Your task to perform on an android device: check the backup settings in the google photos Image 0: 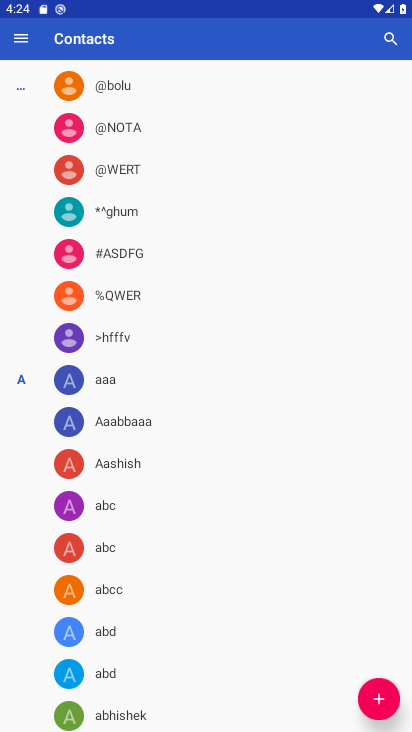
Step 0: press home button
Your task to perform on an android device: check the backup settings in the google photos Image 1: 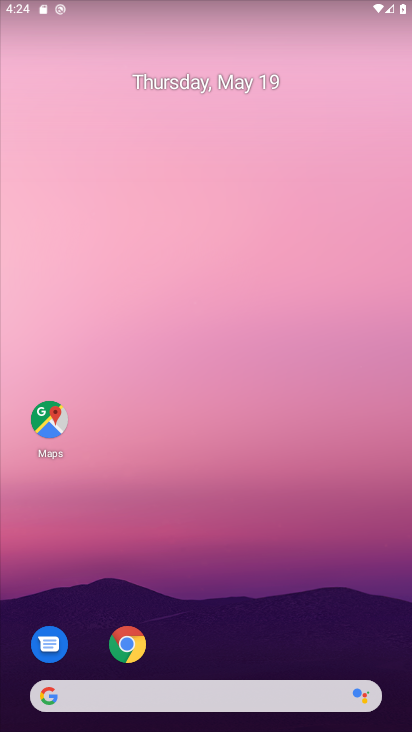
Step 1: drag from (345, 623) to (338, 108)
Your task to perform on an android device: check the backup settings in the google photos Image 2: 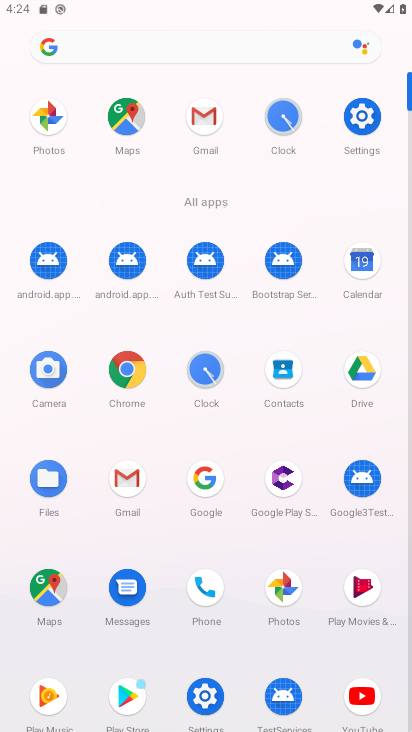
Step 2: click (198, 682)
Your task to perform on an android device: check the backup settings in the google photos Image 3: 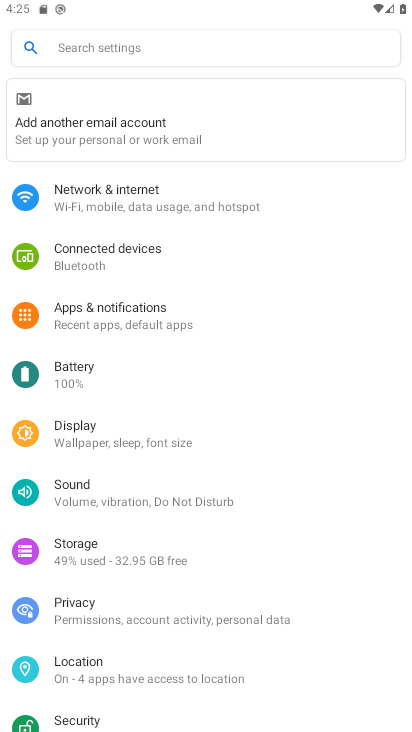
Step 3: press home button
Your task to perform on an android device: check the backup settings in the google photos Image 4: 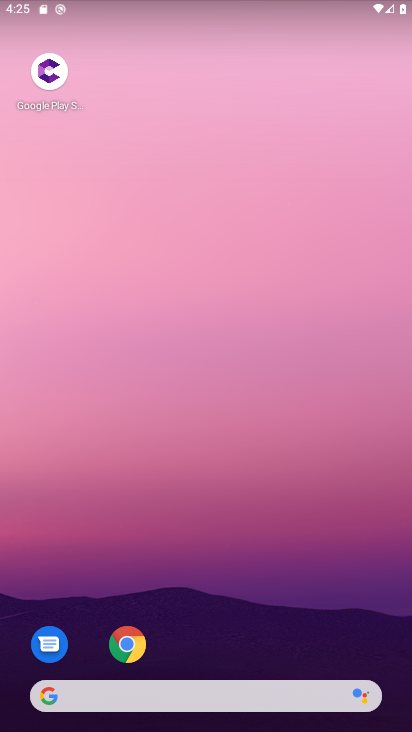
Step 4: drag from (259, 634) to (257, 204)
Your task to perform on an android device: check the backup settings in the google photos Image 5: 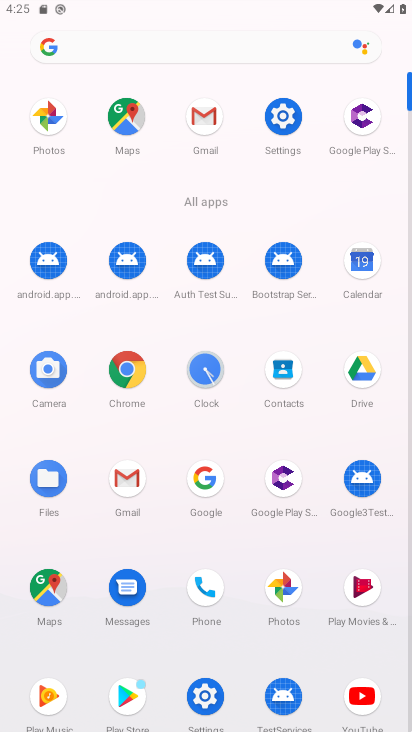
Step 5: click (284, 572)
Your task to perform on an android device: check the backup settings in the google photos Image 6: 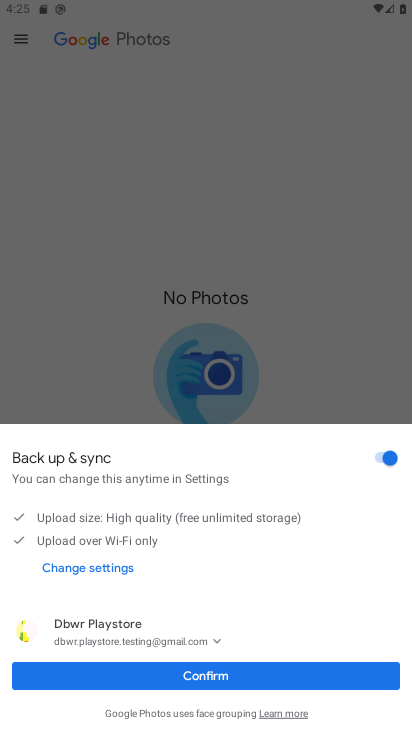
Step 6: click (28, 671)
Your task to perform on an android device: check the backup settings in the google photos Image 7: 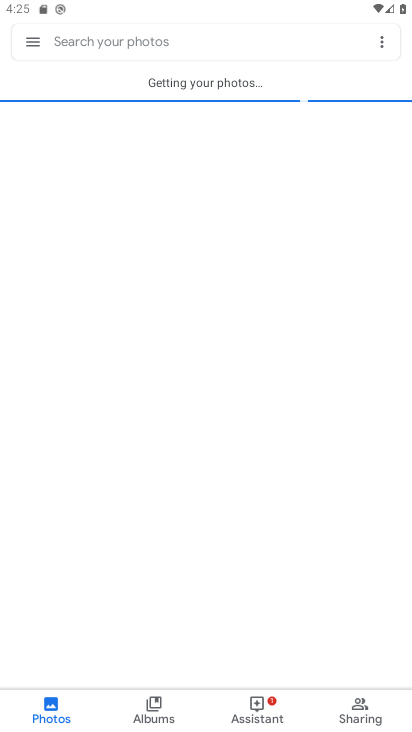
Step 7: click (34, 49)
Your task to perform on an android device: check the backup settings in the google photos Image 8: 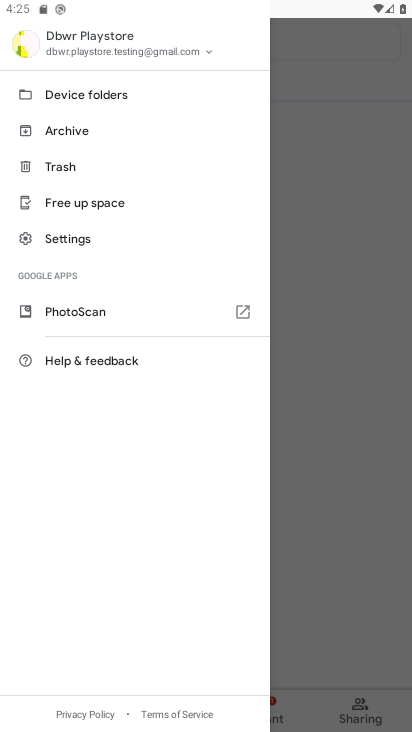
Step 8: click (47, 240)
Your task to perform on an android device: check the backup settings in the google photos Image 9: 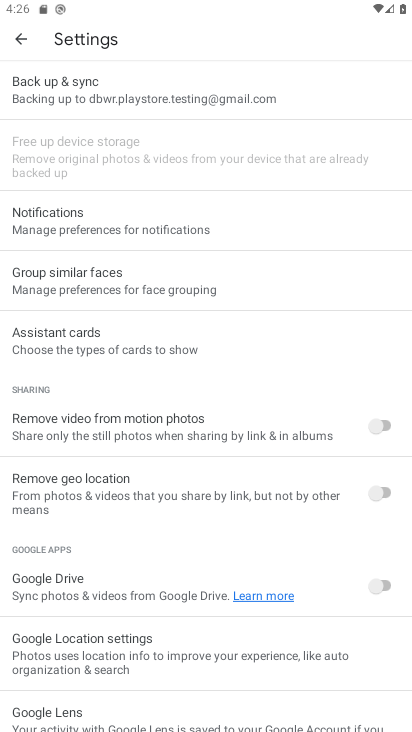
Step 9: click (18, 94)
Your task to perform on an android device: check the backup settings in the google photos Image 10: 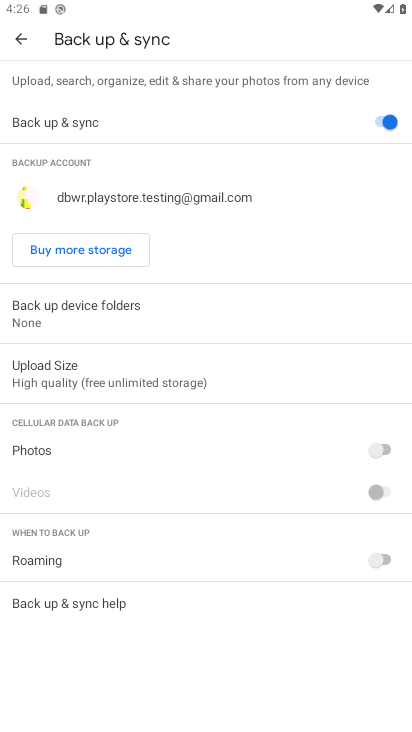
Step 10: task complete